Your task to perform on an android device: Set the phone to "Do not disturb". Image 0: 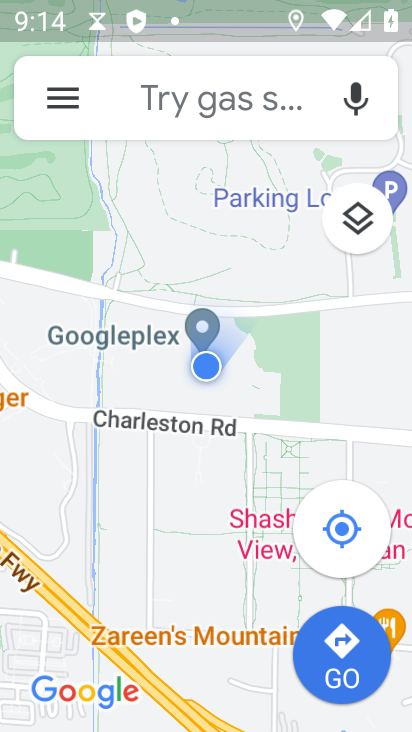
Step 0: press back button
Your task to perform on an android device: Set the phone to "Do not disturb". Image 1: 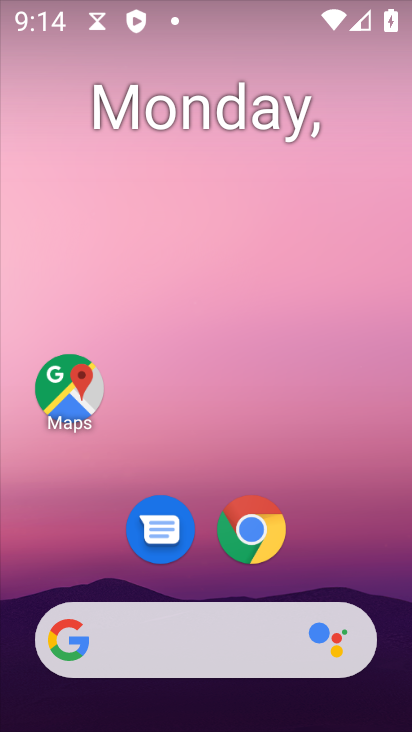
Step 1: drag from (239, 658) to (108, 76)
Your task to perform on an android device: Set the phone to "Do not disturb". Image 2: 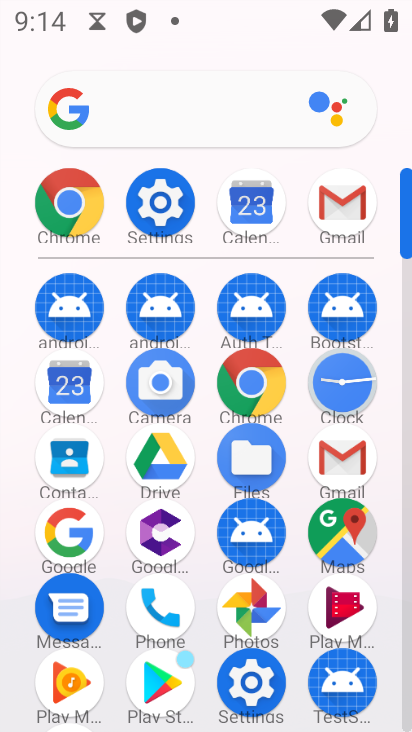
Step 2: click (148, 200)
Your task to perform on an android device: Set the phone to "Do not disturb". Image 3: 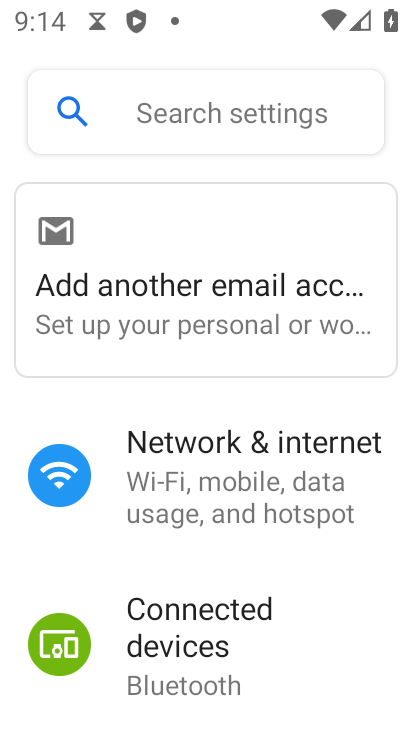
Step 3: drag from (174, 376) to (195, 320)
Your task to perform on an android device: Set the phone to "Do not disturb". Image 4: 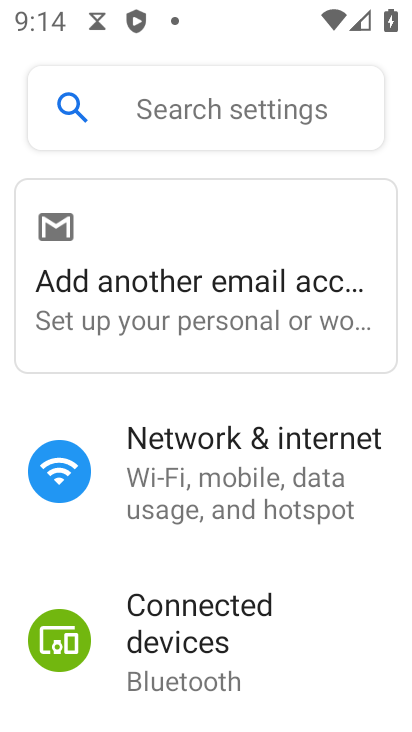
Step 4: click (216, 319)
Your task to perform on an android device: Set the phone to "Do not disturb". Image 5: 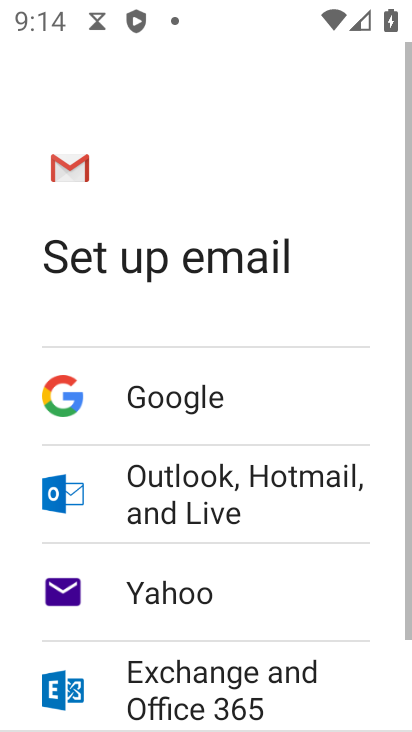
Step 5: press back button
Your task to perform on an android device: Set the phone to "Do not disturb". Image 6: 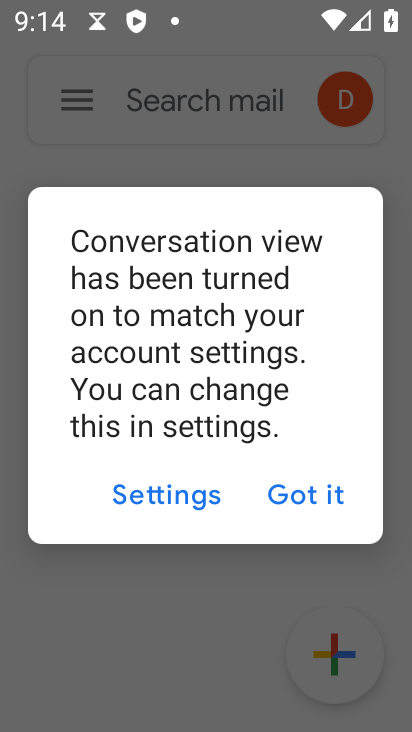
Step 6: press home button
Your task to perform on an android device: Set the phone to "Do not disturb". Image 7: 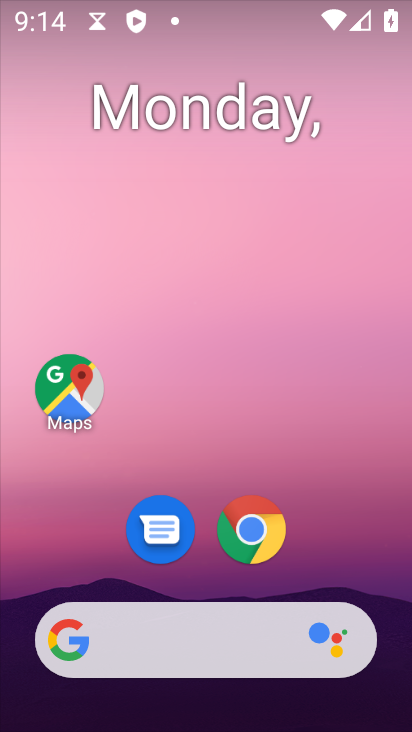
Step 7: drag from (265, 620) to (198, 291)
Your task to perform on an android device: Set the phone to "Do not disturb". Image 8: 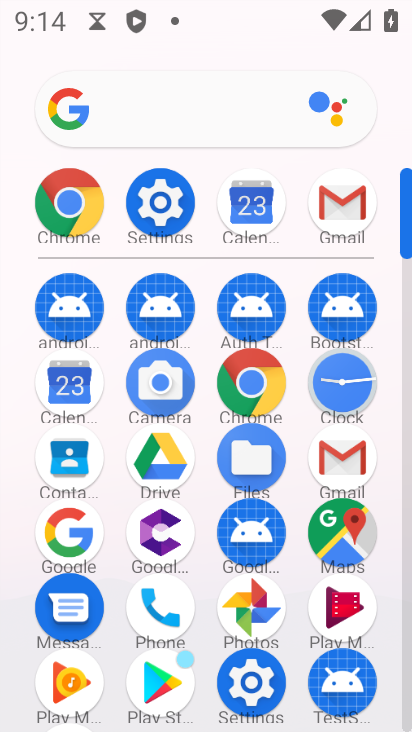
Step 8: click (148, 204)
Your task to perform on an android device: Set the phone to "Do not disturb". Image 9: 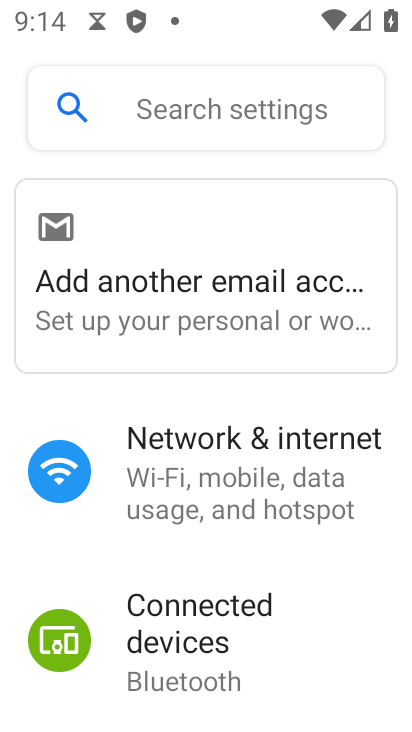
Step 9: drag from (231, 623) to (197, 332)
Your task to perform on an android device: Set the phone to "Do not disturb". Image 10: 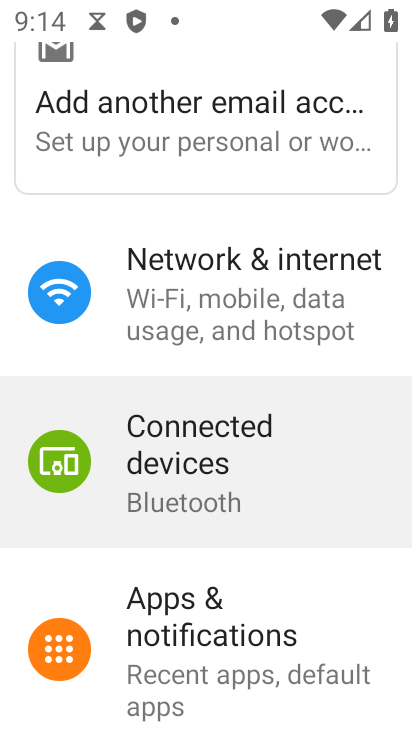
Step 10: drag from (300, 635) to (290, 402)
Your task to perform on an android device: Set the phone to "Do not disturb". Image 11: 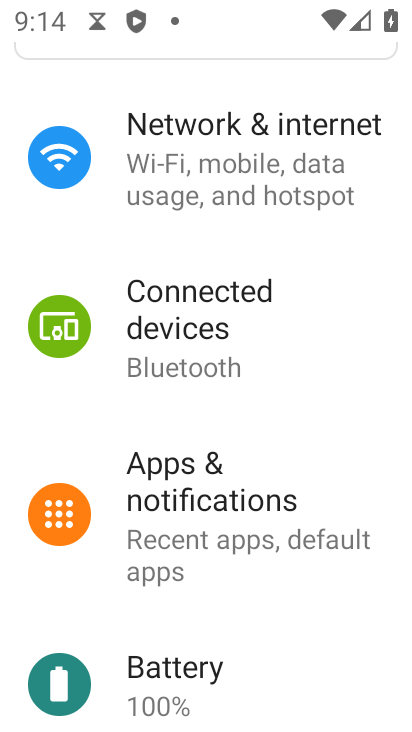
Step 11: drag from (276, 632) to (171, 392)
Your task to perform on an android device: Set the phone to "Do not disturb". Image 12: 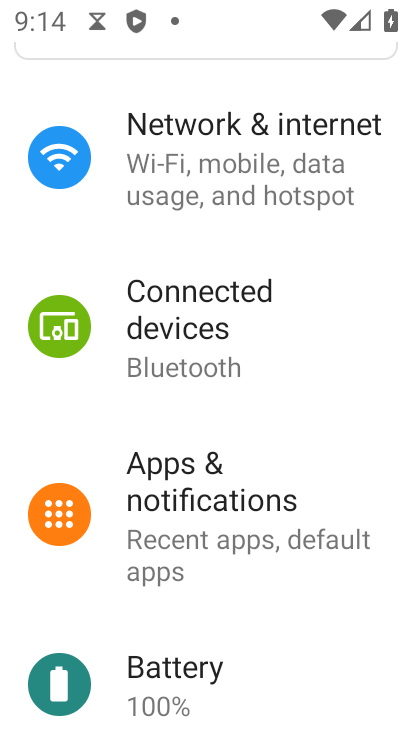
Step 12: drag from (204, 532) to (192, 159)
Your task to perform on an android device: Set the phone to "Do not disturb". Image 13: 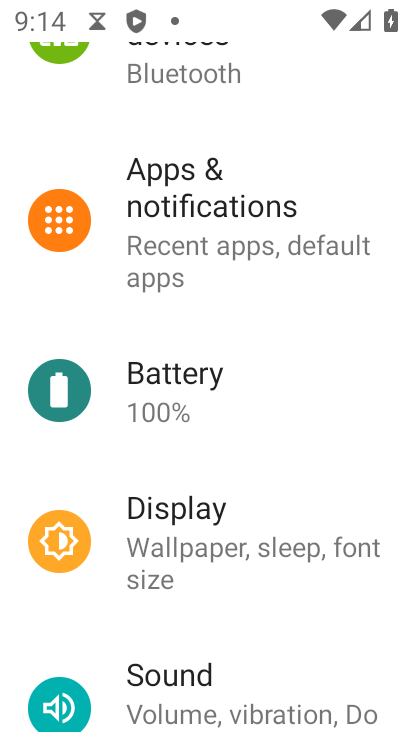
Step 13: drag from (366, 558) to (266, 69)
Your task to perform on an android device: Set the phone to "Do not disturb". Image 14: 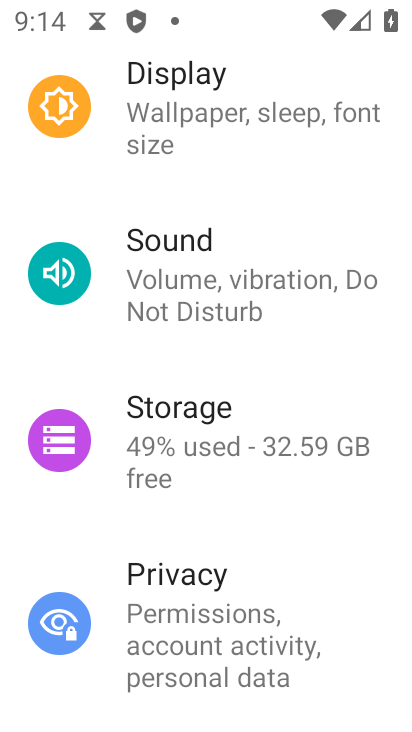
Step 14: drag from (286, 493) to (249, 217)
Your task to perform on an android device: Set the phone to "Do not disturb". Image 15: 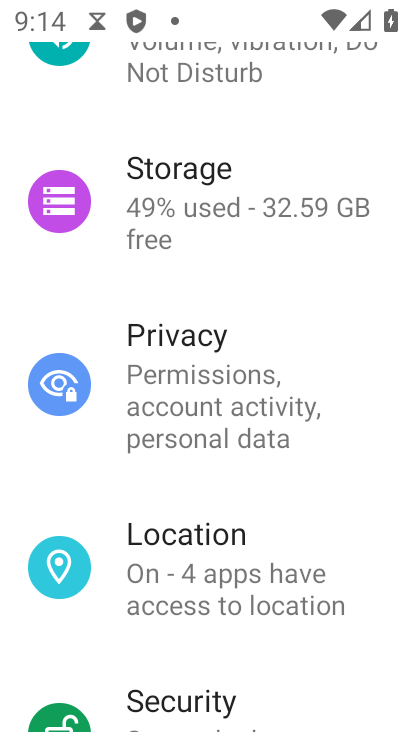
Step 15: drag from (200, 522) to (198, 112)
Your task to perform on an android device: Set the phone to "Do not disturb". Image 16: 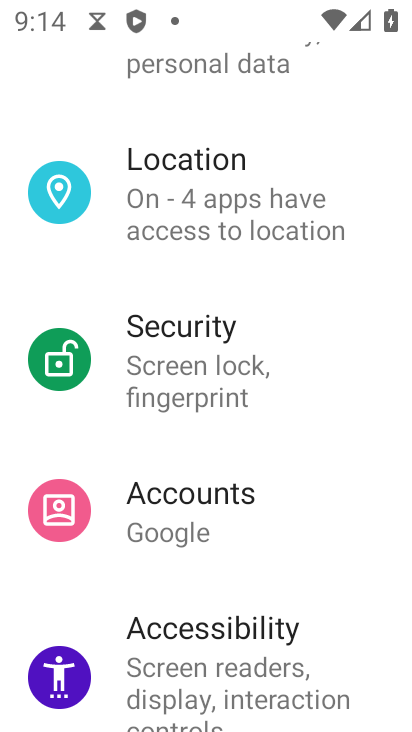
Step 16: drag from (229, 582) to (163, 206)
Your task to perform on an android device: Set the phone to "Do not disturb". Image 17: 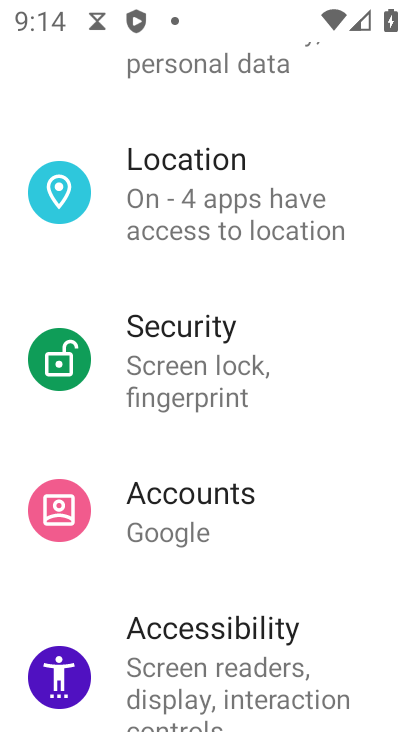
Step 17: drag from (194, 573) to (157, 270)
Your task to perform on an android device: Set the phone to "Do not disturb". Image 18: 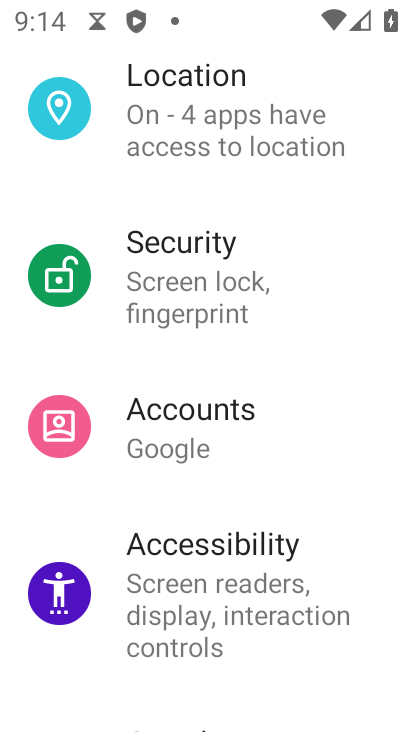
Step 18: drag from (203, 536) to (196, 130)
Your task to perform on an android device: Set the phone to "Do not disturb". Image 19: 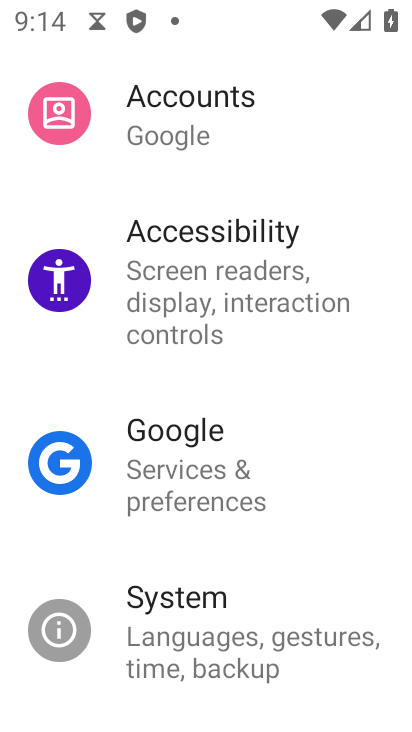
Step 19: drag from (238, 448) to (240, 170)
Your task to perform on an android device: Set the phone to "Do not disturb". Image 20: 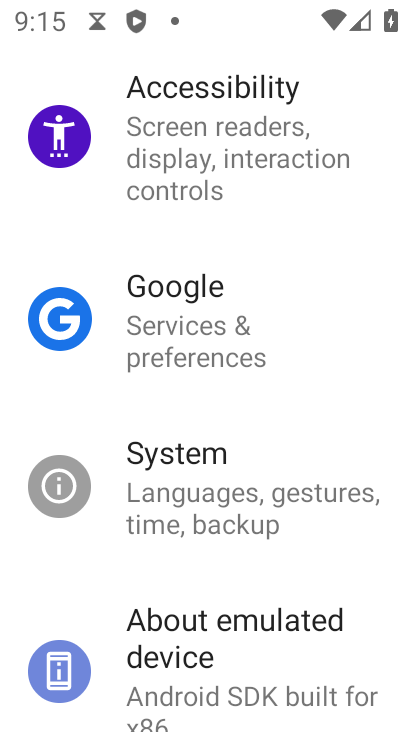
Step 20: drag from (247, 672) to (209, 101)
Your task to perform on an android device: Set the phone to "Do not disturb". Image 21: 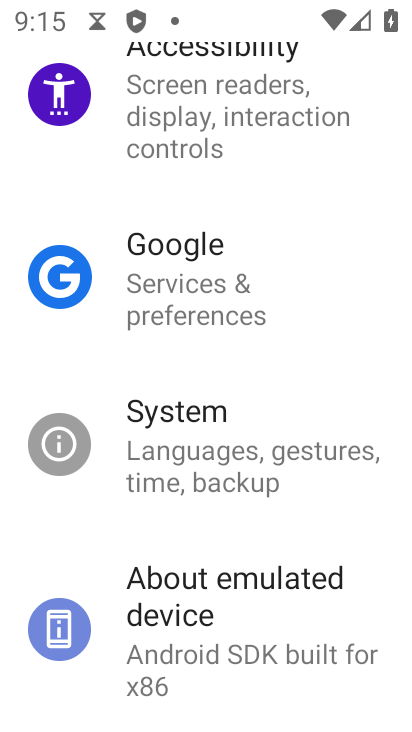
Step 21: drag from (137, 208) to (137, 646)
Your task to perform on an android device: Set the phone to "Do not disturb". Image 22: 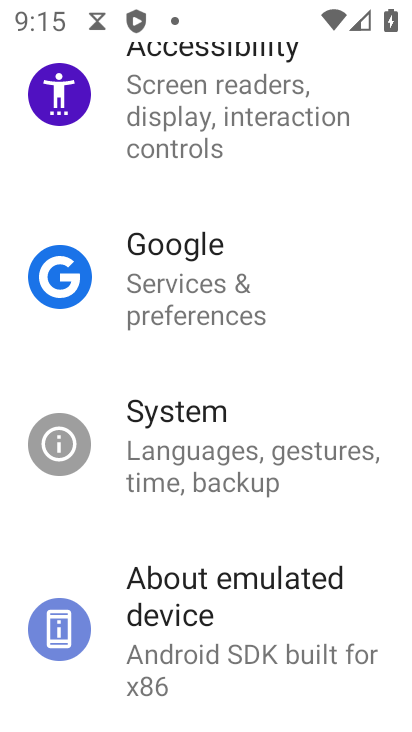
Step 22: drag from (128, 335) to (148, 718)
Your task to perform on an android device: Set the phone to "Do not disturb". Image 23: 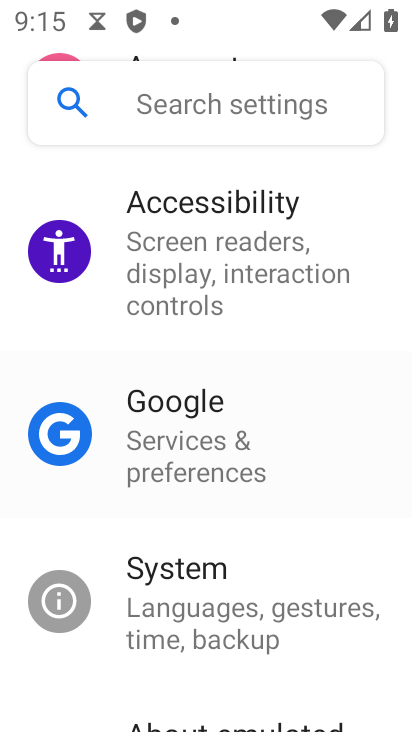
Step 23: drag from (212, 272) to (271, 683)
Your task to perform on an android device: Set the phone to "Do not disturb". Image 24: 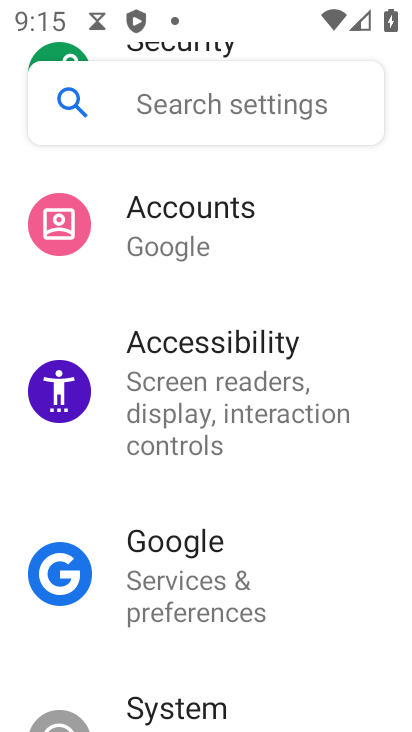
Step 24: drag from (234, 484) to (234, 550)
Your task to perform on an android device: Set the phone to "Do not disturb". Image 25: 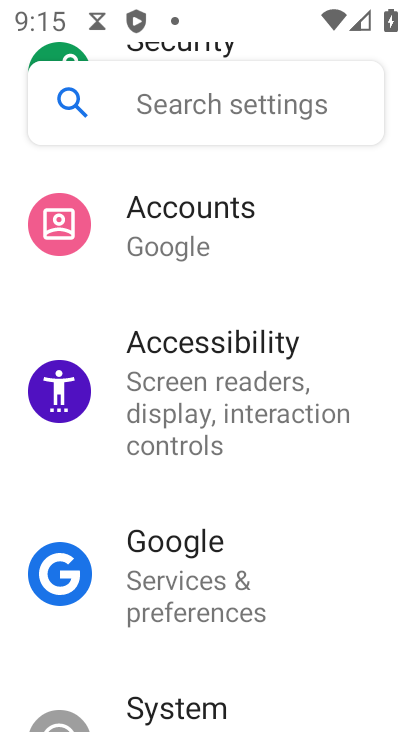
Step 25: drag from (163, 267) to (168, 551)
Your task to perform on an android device: Set the phone to "Do not disturb". Image 26: 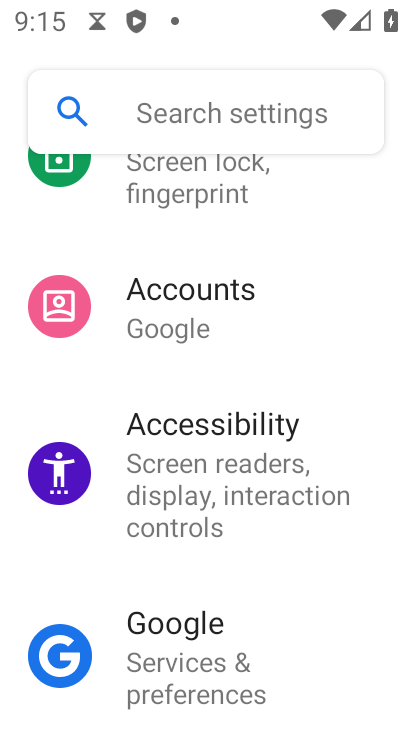
Step 26: drag from (151, 195) to (178, 471)
Your task to perform on an android device: Set the phone to "Do not disturb". Image 27: 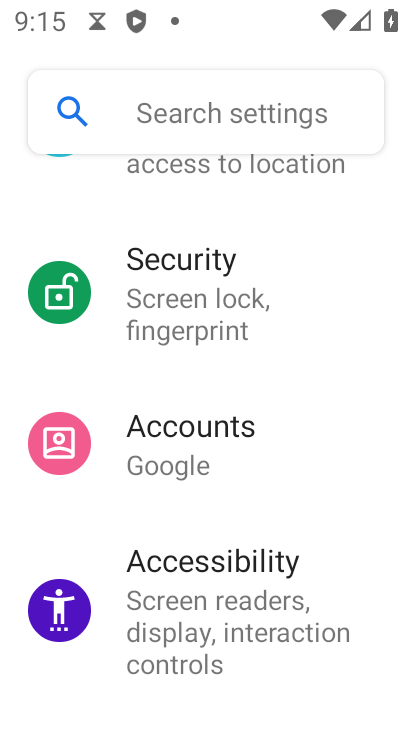
Step 27: click (204, 719)
Your task to perform on an android device: Set the phone to "Do not disturb". Image 28: 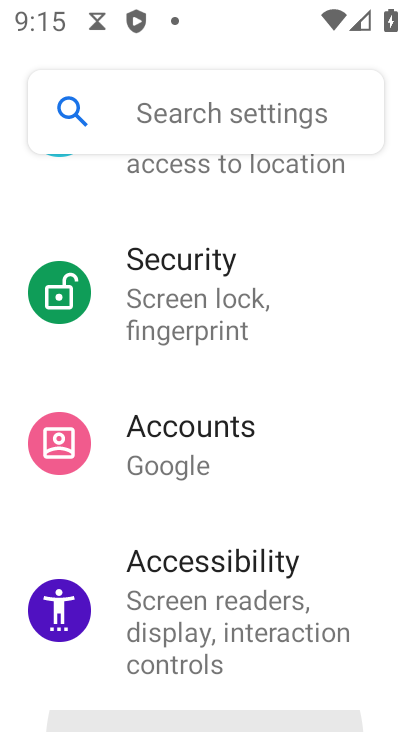
Step 28: drag from (176, 515) to (204, 700)
Your task to perform on an android device: Set the phone to "Do not disturb". Image 29: 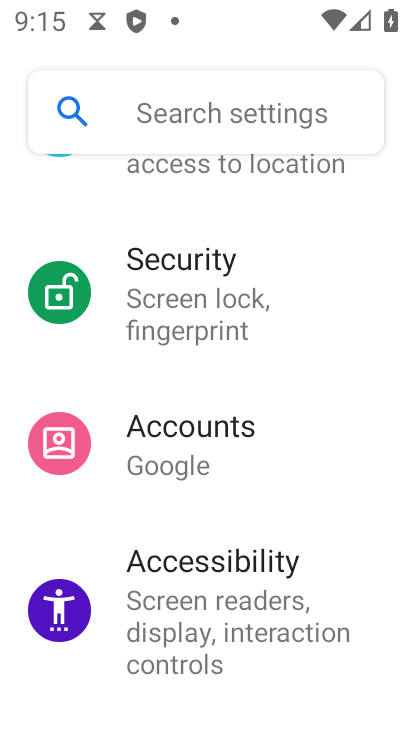
Step 29: drag from (169, 593) to (196, 730)
Your task to perform on an android device: Set the phone to "Do not disturb". Image 30: 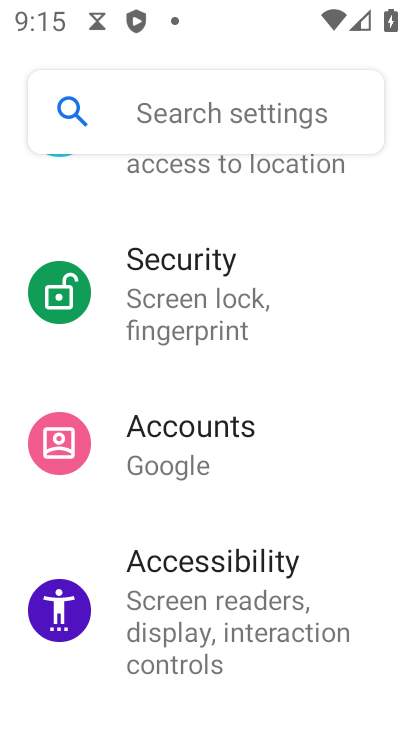
Step 30: drag from (142, 629) to (162, 713)
Your task to perform on an android device: Set the phone to "Do not disturb". Image 31: 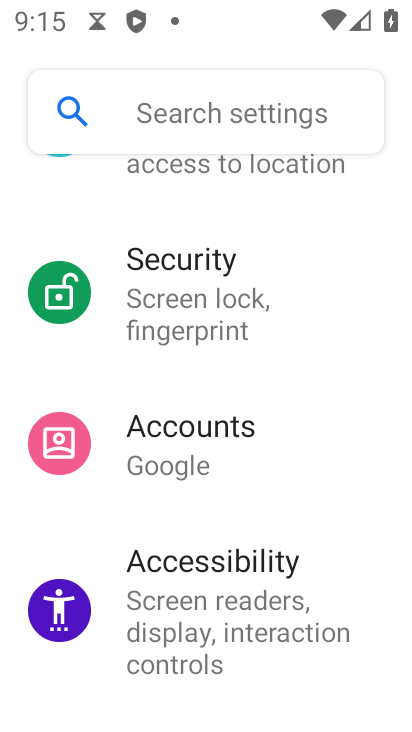
Step 31: drag from (142, 346) to (189, 589)
Your task to perform on an android device: Set the phone to "Do not disturb". Image 32: 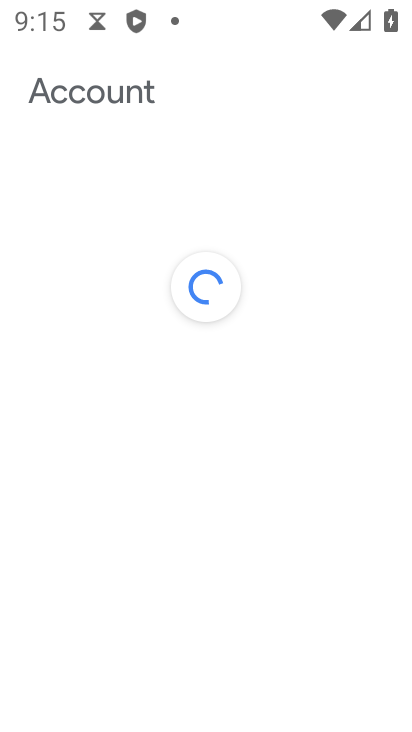
Step 32: drag from (147, 369) to (233, 687)
Your task to perform on an android device: Set the phone to "Do not disturb". Image 33: 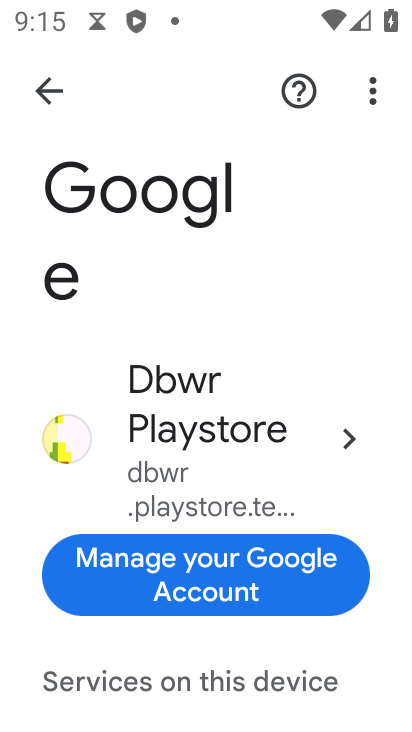
Step 33: press back button
Your task to perform on an android device: Set the phone to "Do not disturb". Image 34: 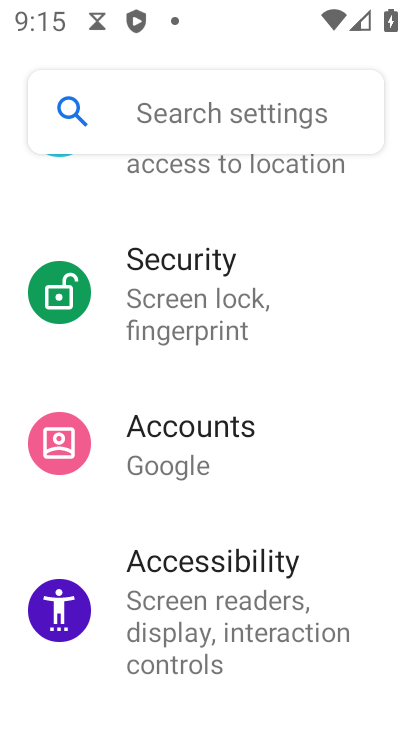
Step 34: drag from (204, 337) to (215, 654)
Your task to perform on an android device: Set the phone to "Do not disturb". Image 35: 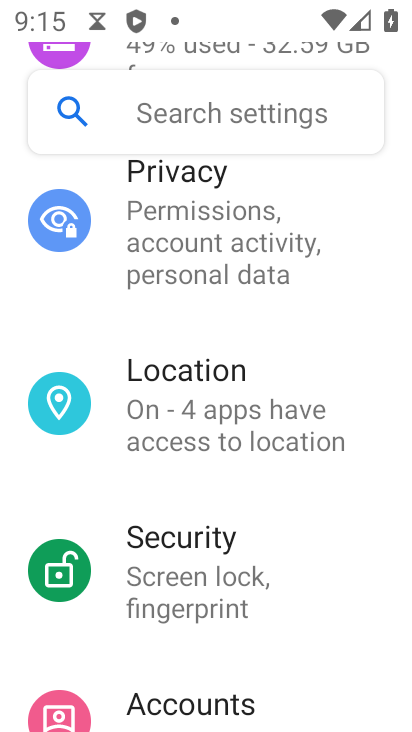
Step 35: drag from (164, 319) to (178, 637)
Your task to perform on an android device: Set the phone to "Do not disturb". Image 36: 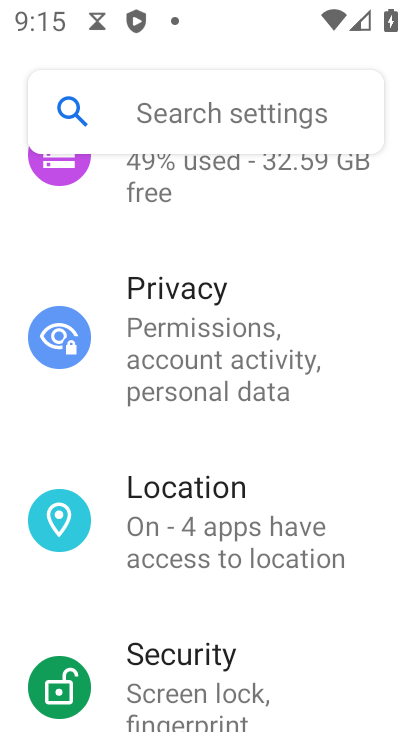
Step 36: drag from (180, 288) to (163, 599)
Your task to perform on an android device: Set the phone to "Do not disturb". Image 37: 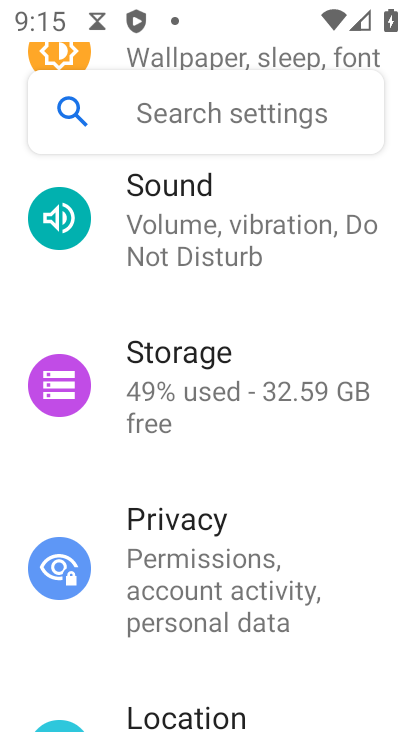
Step 37: drag from (157, 310) to (215, 620)
Your task to perform on an android device: Set the phone to "Do not disturb". Image 38: 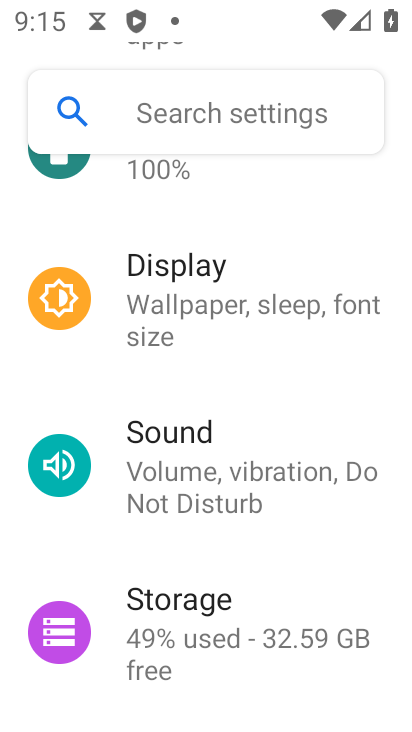
Step 38: click (210, 466)
Your task to perform on an android device: Set the phone to "Do not disturb". Image 39: 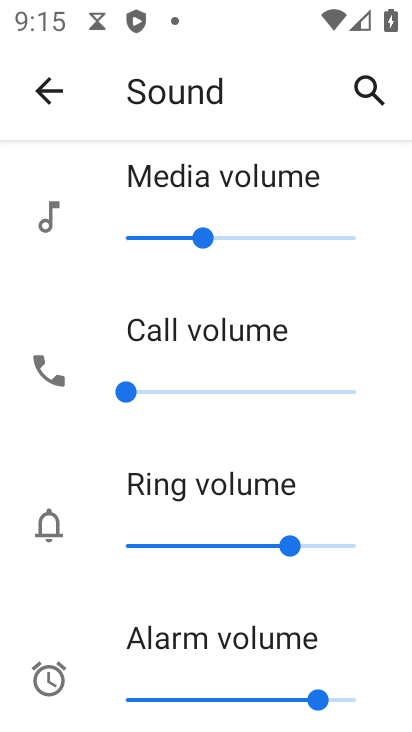
Step 39: task complete